Your task to perform on an android device: Open the calendar app, open the side menu, and click the "Day" option Image 0: 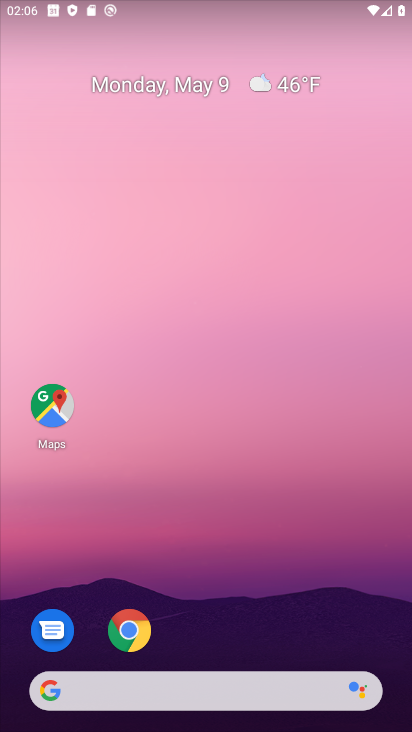
Step 0: drag from (200, 626) to (218, 41)
Your task to perform on an android device: Open the calendar app, open the side menu, and click the "Day" option Image 1: 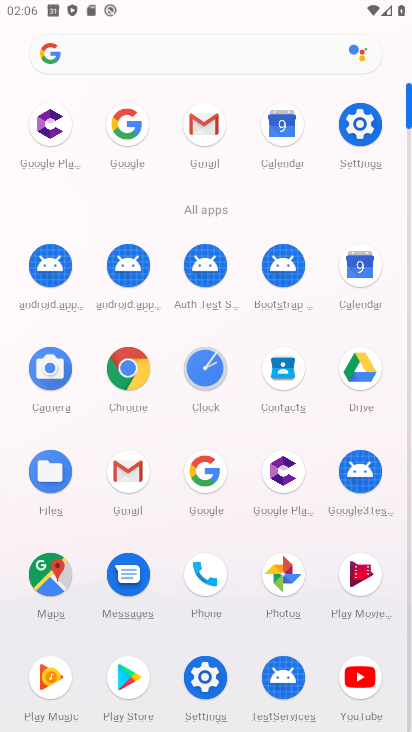
Step 1: click (278, 123)
Your task to perform on an android device: Open the calendar app, open the side menu, and click the "Day" option Image 2: 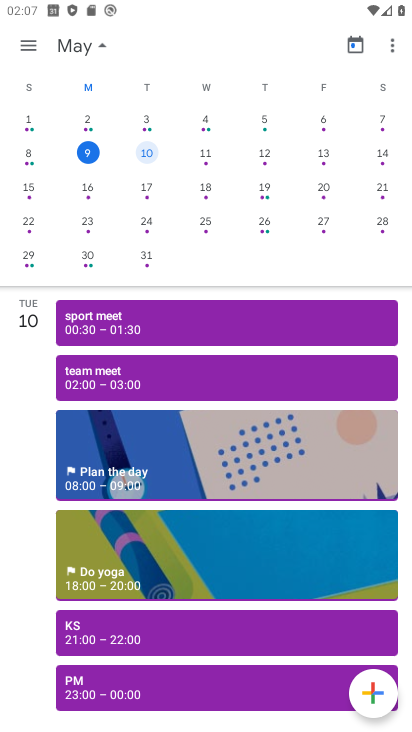
Step 2: click (30, 50)
Your task to perform on an android device: Open the calendar app, open the side menu, and click the "Day" option Image 3: 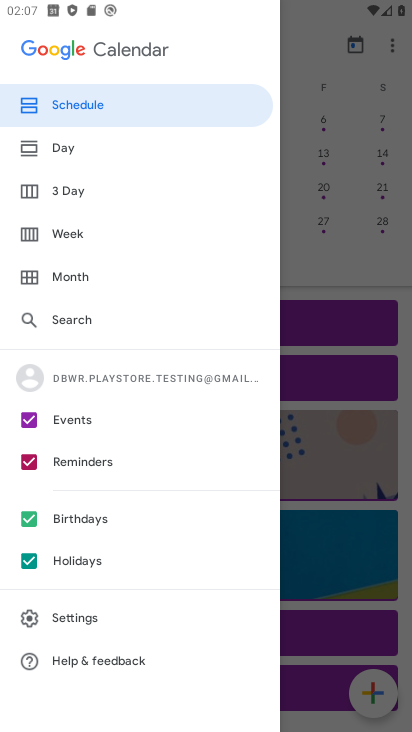
Step 3: click (76, 151)
Your task to perform on an android device: Open the calendar app, open the side menu, and click the "Day" option Image 4: 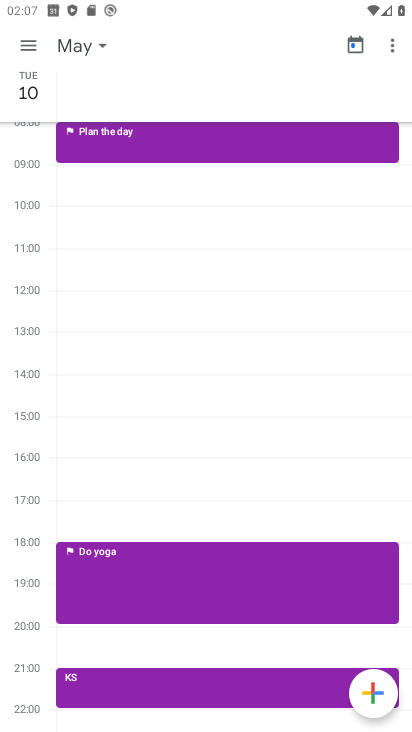
Step 4: task complete